Your task to perform on an android device: toggle javascript in the chrome app Image 0: 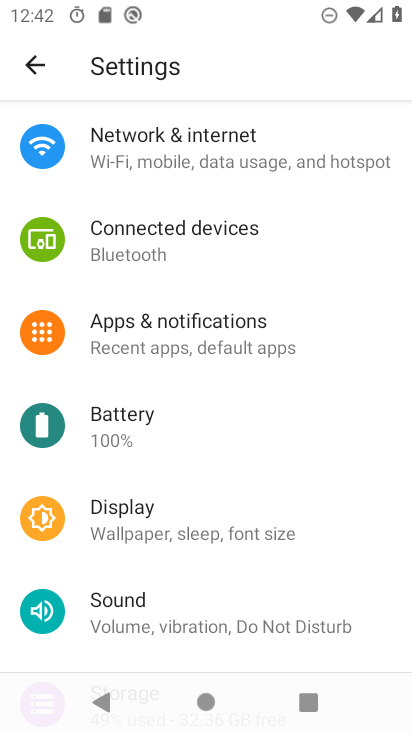
Step 0: press home button
Your task to perform on an android device: toggle javascript in the chrome app Image 1: 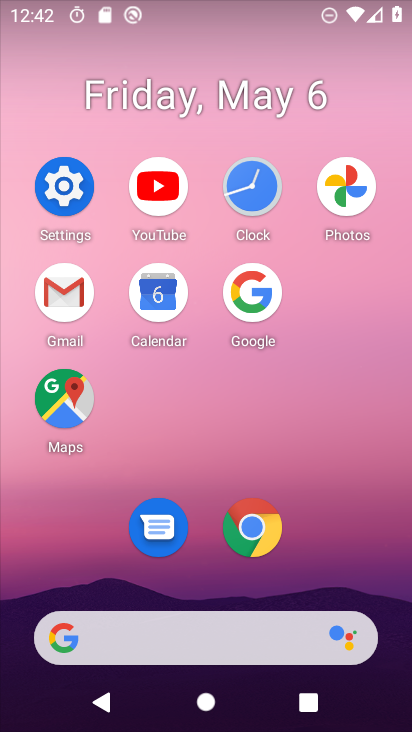
Step 1: click (264, 529)
Your task to perform on an android device: toggle javascript in the chrome app Image 2: 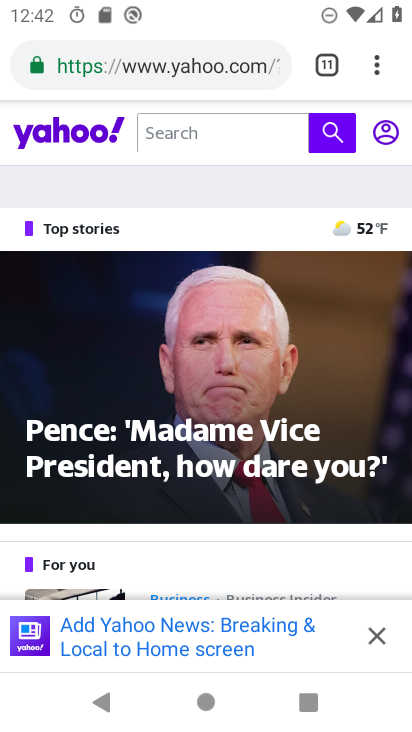
Step 2: click (380, 59)
Your task to perform on an android device: toggle javascript in the chrome app Image 3: 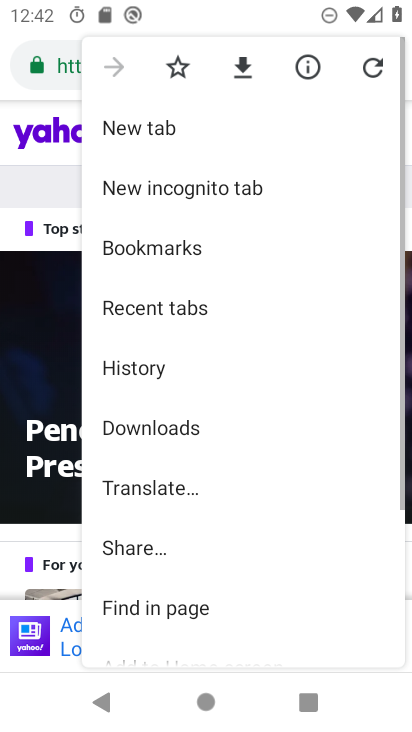
Step 3: drag from (242, 447) to (231, 134)
Your task to perform on an android device: toggle javascript in the chrome app Image 4: 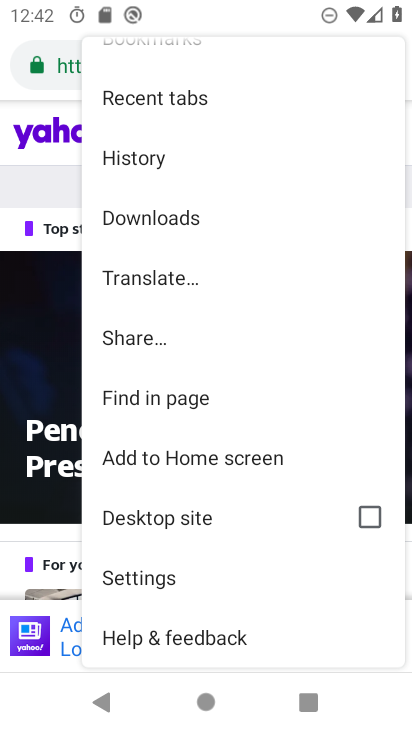
Step 4: click (179, 578)
Your task to perform on an android device: toggle javascript in the chrome app Image 5: 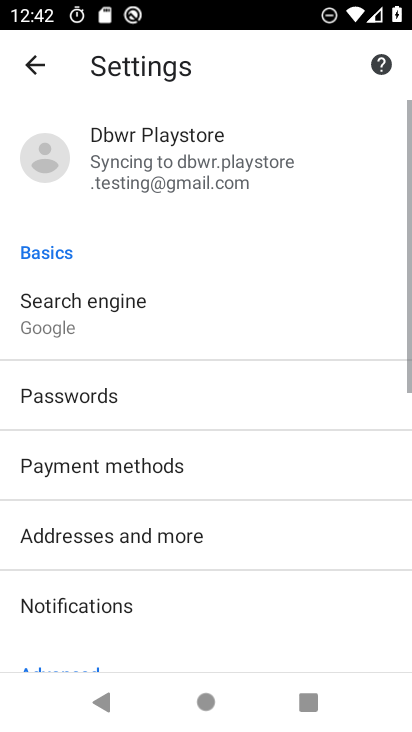
Step 5: drag from (206, 526) to (246, 169)
Your task to perform on an android device: toggle javascript in the chrome app Image 6: 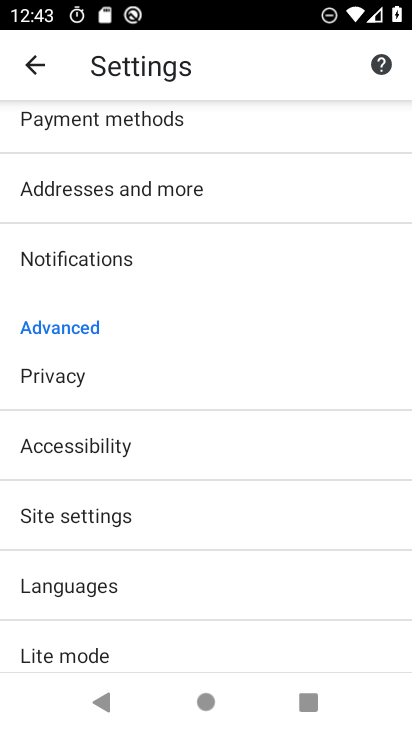
Step 6: click (197, 520)
Your task to perform on an android device: toggle javascript in the chrome app Image 7: 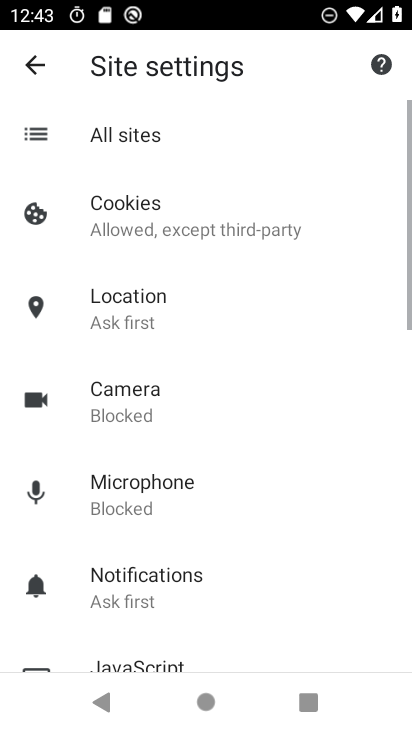
Step 7: drag from (196, 519) to (225, 189)
Your task to perform on an android device: toggle javascript in the chrome app Image 8: 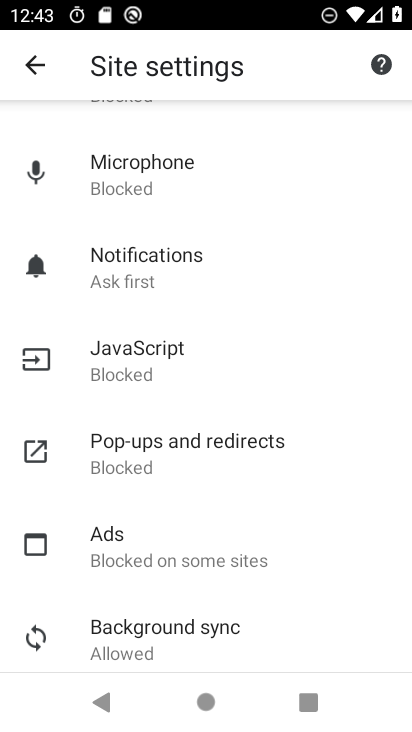
Step 8: click (202, 351)
Your task to perform on an android device: toggle javascript in the chrome app Image 9: 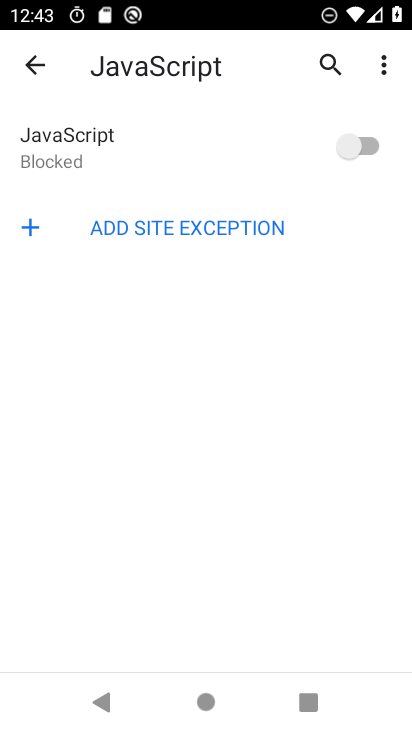
Step 9: click (342, 151)
Your task to perform on an android device: toggle javascript in the chrome app Image 10: 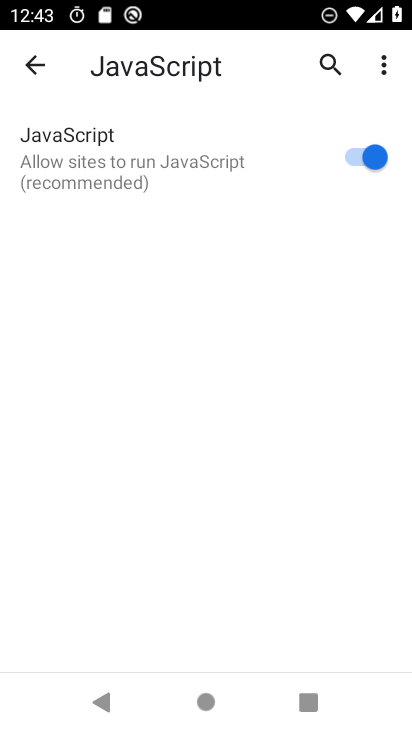
Step 10: task complete